Your task to perform on an android device: turn pop-ups on in chrome Image 0: 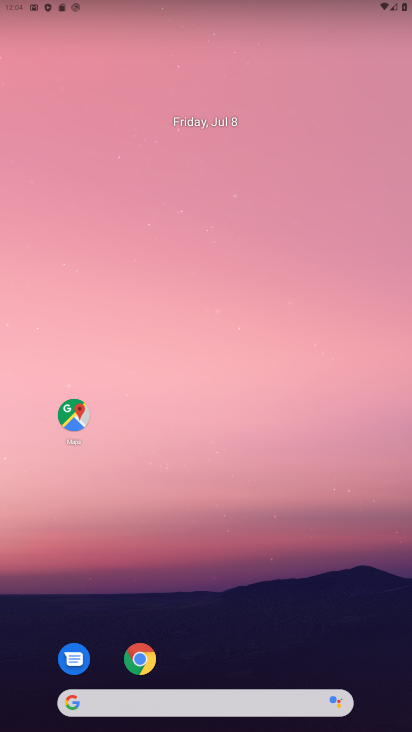
Step 0: drag from (252, 516) to (236, 8)
Your task to perform on an android device: turn pop-ups on in chrome Image 1: 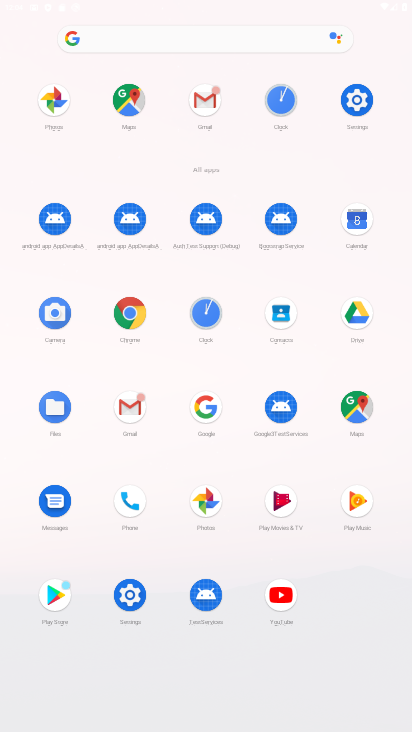
Step 1: click (137, 316)
Your task to perform on an android device: turn pop-ups on in chrome Image 2: 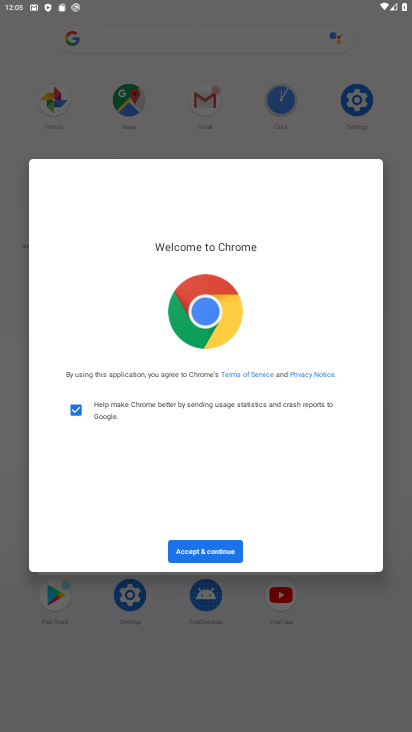
Step 2: click (227, 542)
Your task to perform on an android device: turn pop-ups on in chrome Image 3: 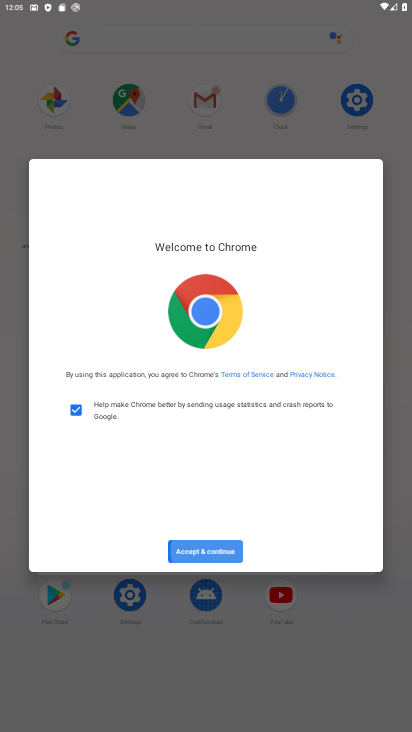
Step 3: click (226, 549)
Your task to perform on an android device: turn pop-ups on in chrome Image 4: 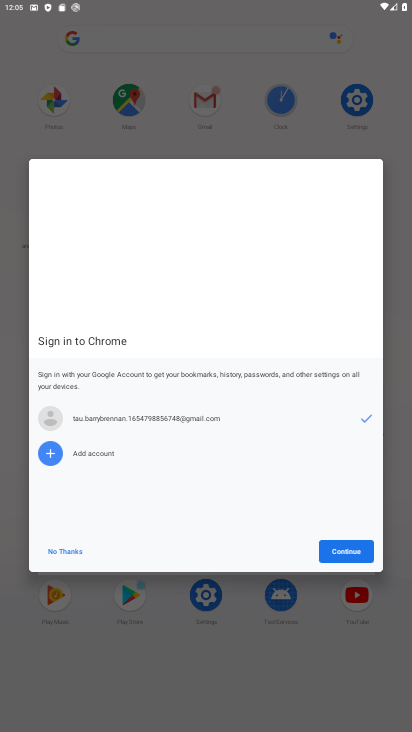
Step 4: click (343, 549)
Your task to perform on an android device: turn pop-ups on in chrome Image 5: 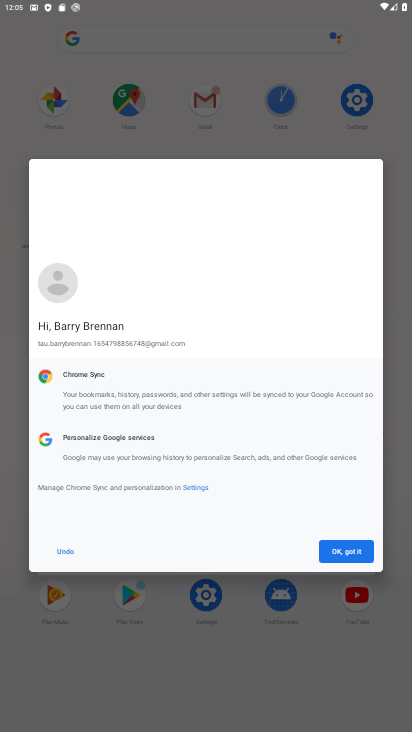
Step 5: click (369, 552)
Your task to perform on an android device: turn pop-ups on in chrome Image 6: 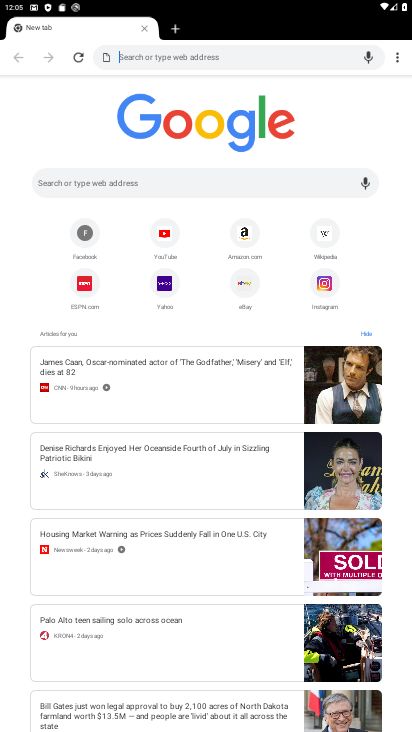
Step 6: drag from (85, 137) to (404, 150)
Your task to perform on an android device: turn pop-ups on in chrome Image 7: 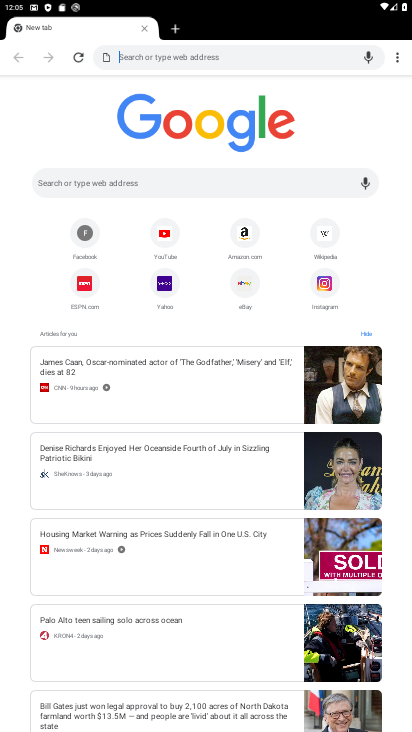
Step 7: click (396, 59)
Your task to perform on an android device: turn pop-ups on in chrome Image 8: 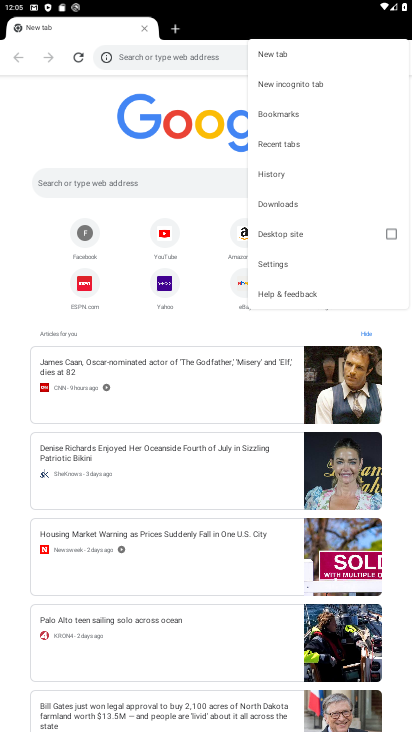
Step 8: click (300, 268)
Your task to perform on an android device: turn pop-ups on in chrome Image 9: 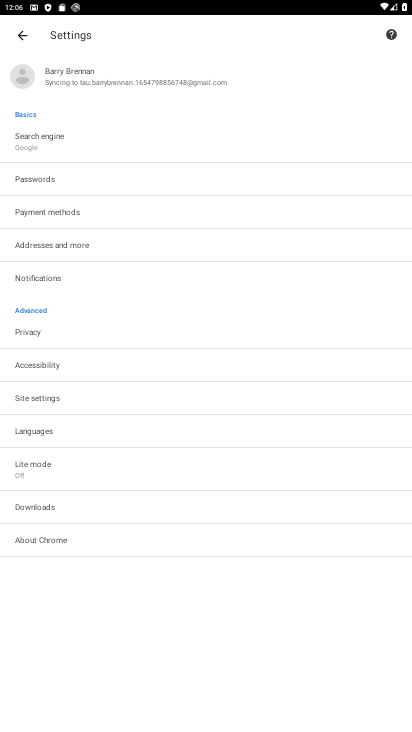
Step 9: click (95, 400)
Your task to perform on an android device: turn pop-ups on in chrome Image 10: 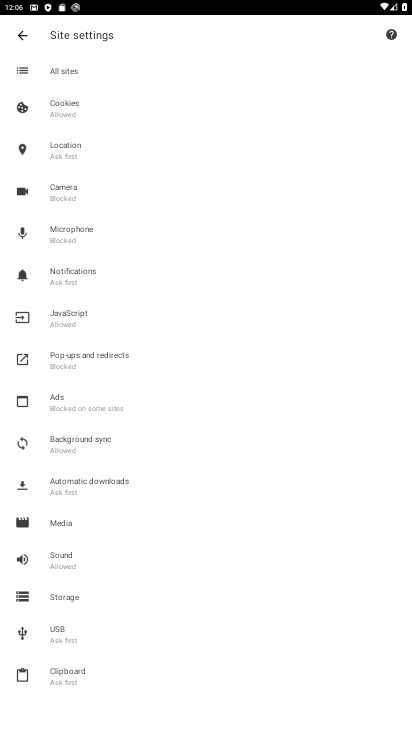
Step 10: click (122, 353)
Your task to perform on an android device: turn pop-ups on in chrome Image 11: 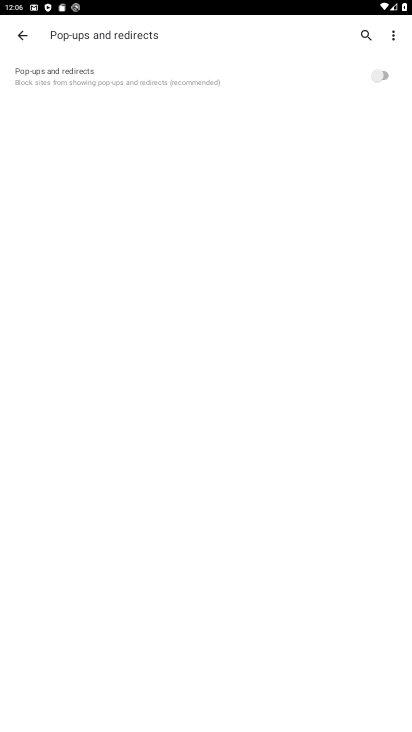
Step 11: click (376, 77)
Your task to perform on an android device: turn pop-ups on in chrome Image 12: 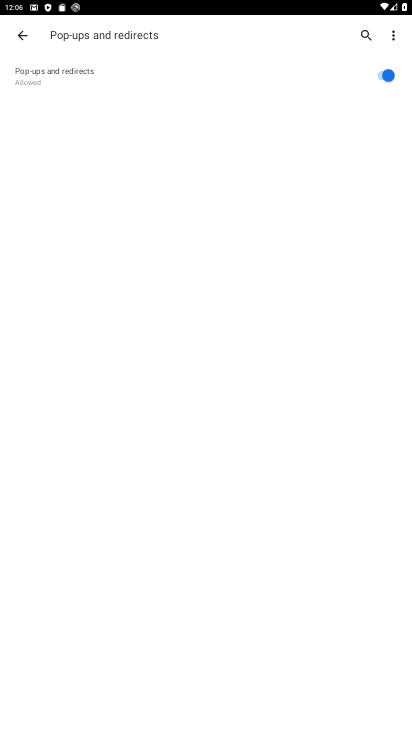
Step 12: task complete